Your task to perform on an android device: turn on airplane mode Image 0: 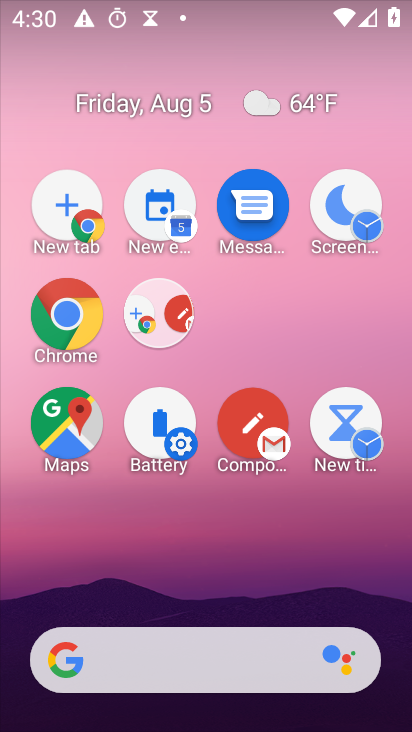
Step 0: drag from (215, 407) to (174, 260)
Your task to perform on an android device: turn on airplane mode Image 1: 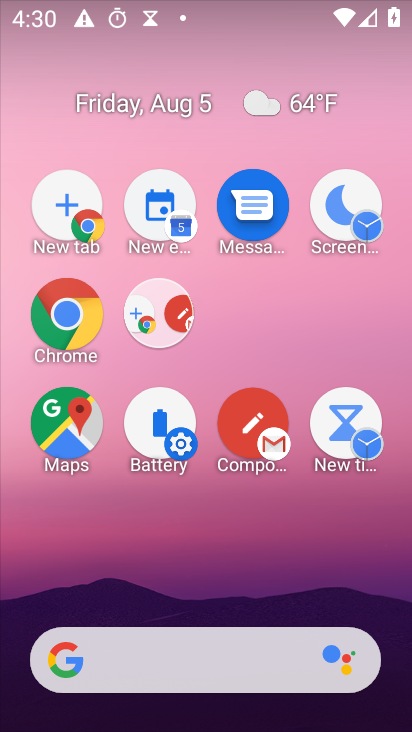
Step 1: drag from (150, 473) to (148, 215)
Your task to perform on an android device: turn on airplane mode Image 2: 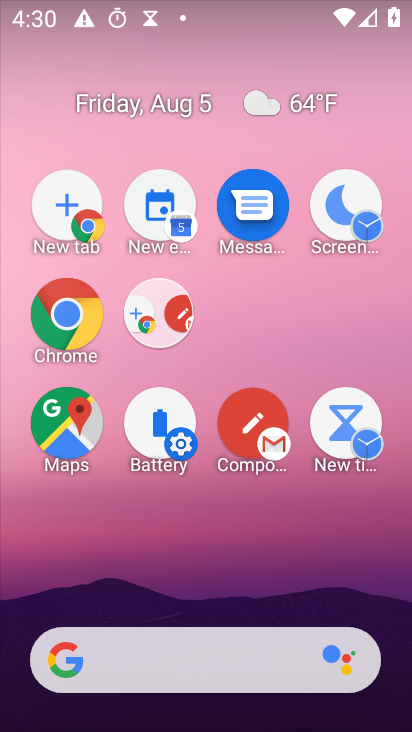
Step 2: drag from (170, 471) to (134, 136)
Your task to perform on an android device: turn on airplane mode Image 3: 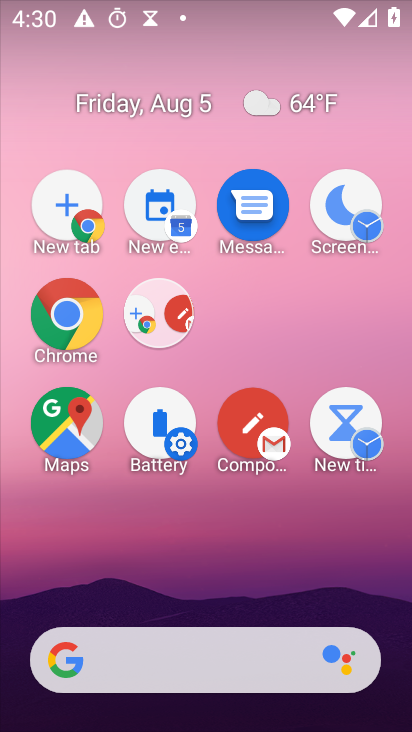
Step 3: press back button
Your task to perform on an android device: turn on airplane mode Image 4: 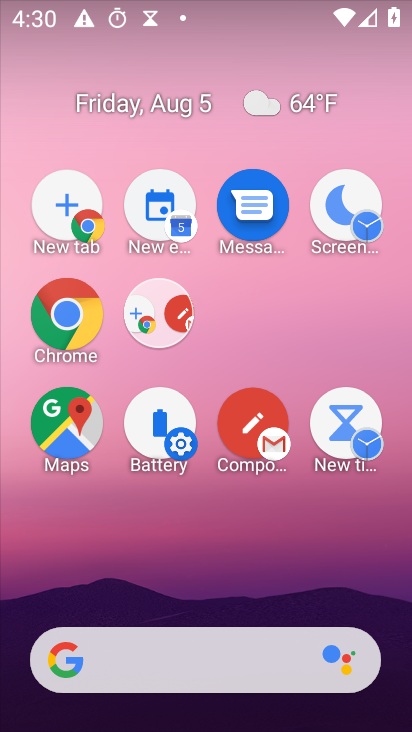
Step 4: press back button
Your task to perform on an android device: turn on airplane mode Image 5: 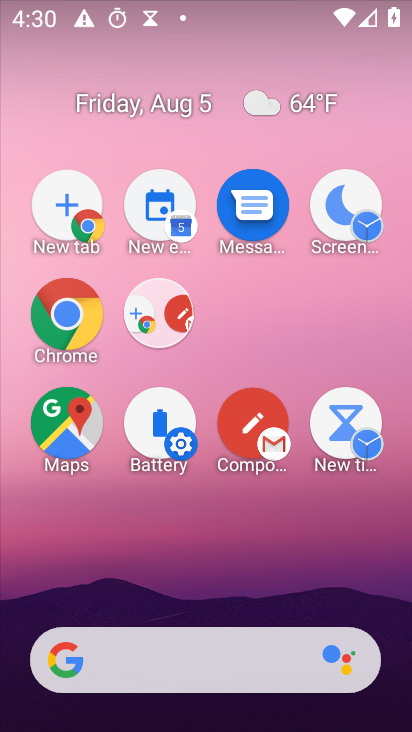
Step 5: press back button
Your task to perform on an android device: turn on airplane mode Image 6: 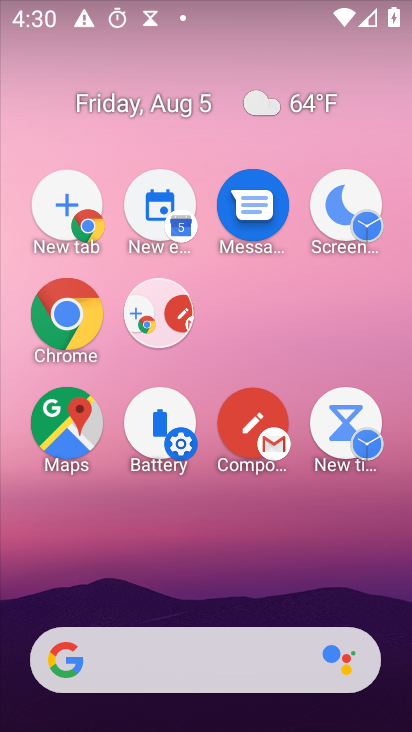
Step 6: drag from (191, 607) to (48, 190)
Your task to perform on an android device: turn on airplane mode Image 7: 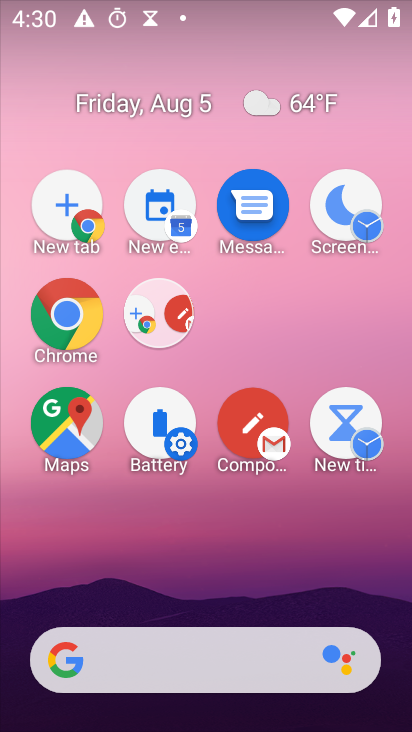
Step 7: drag from (150, 472) to (156, 158)
Your task to perform on an android device: turn on airplane mode Image 8: 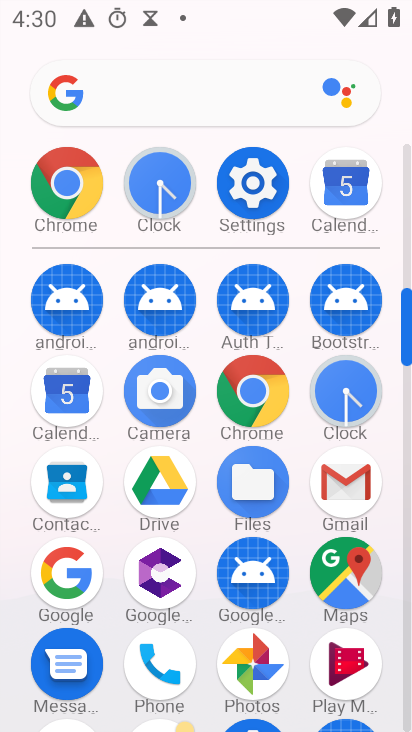
Step 8: drag from (218, 412) to (205, 96)
Your task to perform on an android device: turn on airplane mode Image 9: 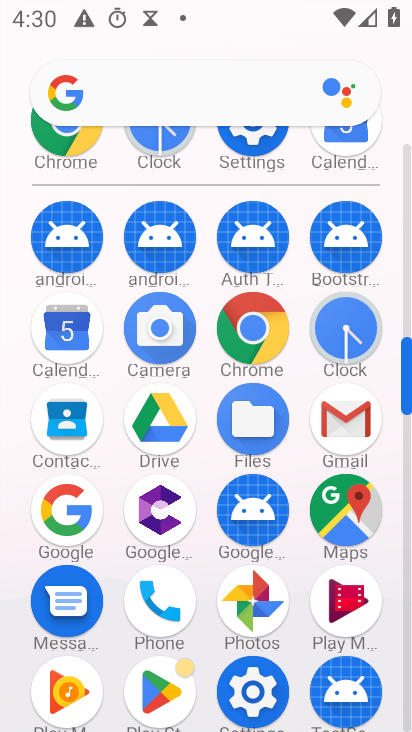
Step 9: click (253, 141)
Your task to perform on an android device: turn on airplane mode Image 10: 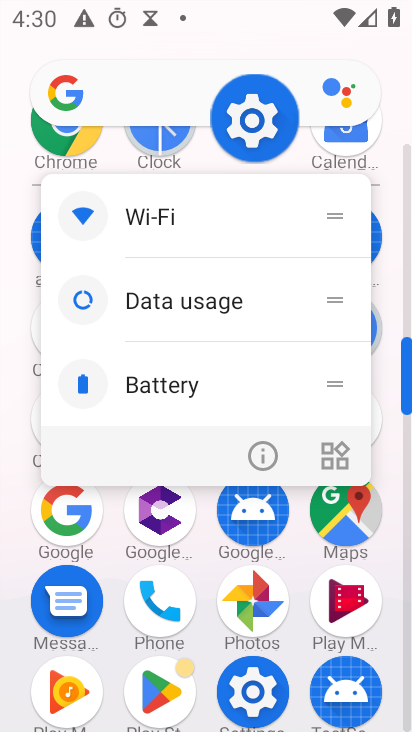
Step 10: click (257, 139)
Your task to perform on an android device: turn on airplane mode Image 11: 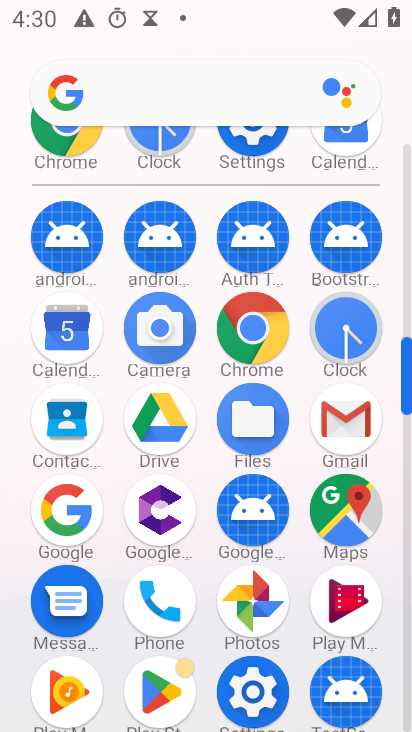
Step 11: click (258, 132)
Your task to perform on an android device: turn on airplane mode Image 12: 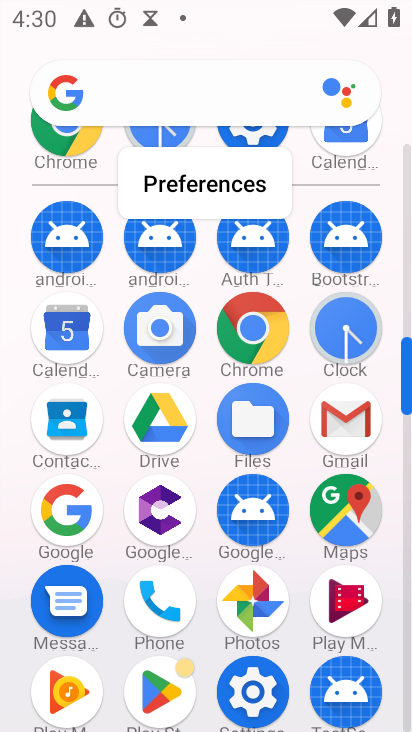
Step 12: click (254, 156)
Your task to perform on an android device: turn on airplane mode Image 13: 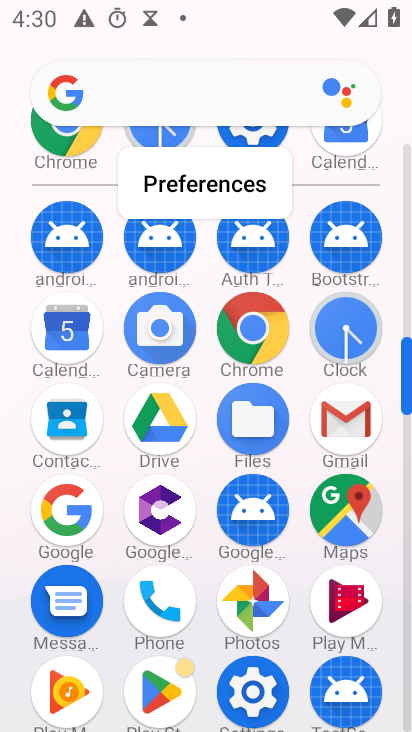
Step 13: click (254, 136)
Your task to perform on an android device: turn on airplane mode Image 14: 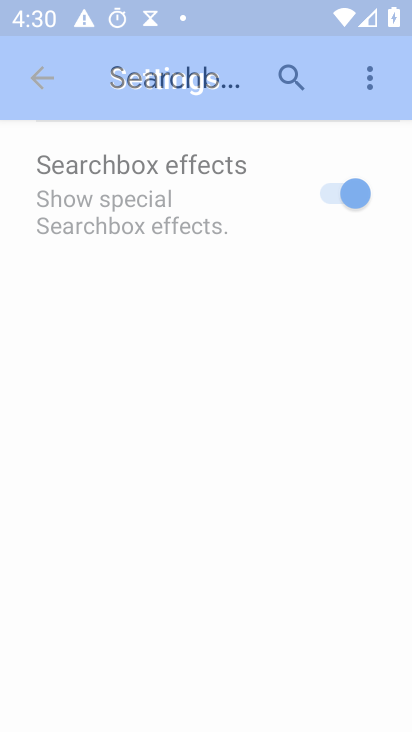
Step 14: drag from (257, 145) to (260, 212)
Your task to perform on an android device: turn on airplane mode Image 15: 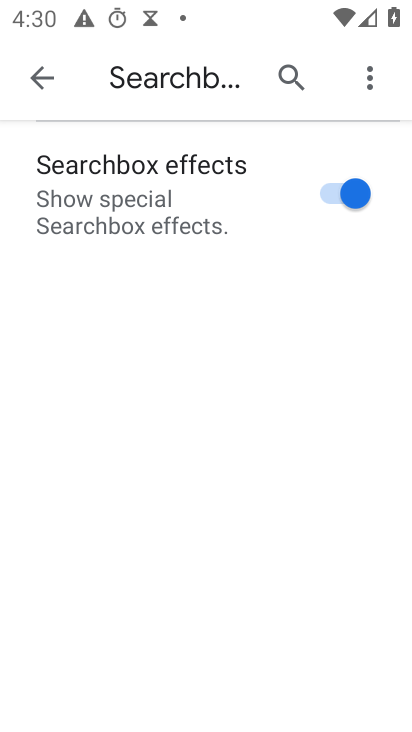
Step 15: click (24, 85)
Your task to perform on an android device: turn on airplane mode Image 16: 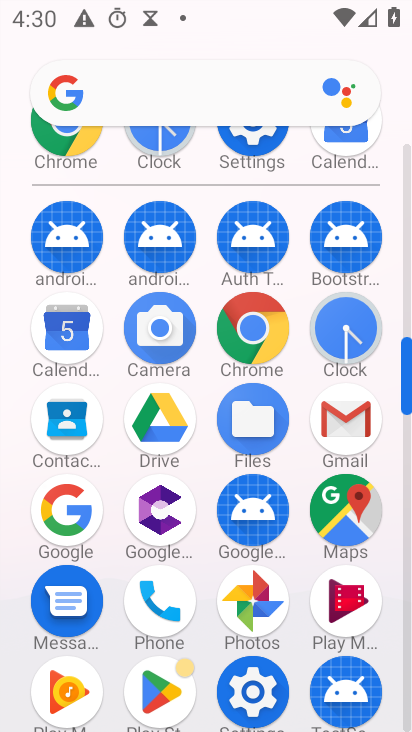
Step 16: drag from (233, 448) to (216, 217)
Your task to perform on an android device: turn on airplane mode Image 17: 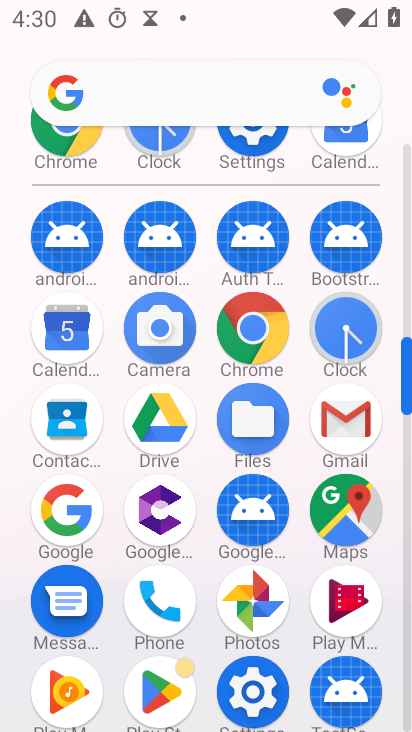
Step 17: drag from (197, 408) to (208, 351)
Your task to perform on an android device: turn on airplane mode Image 18: 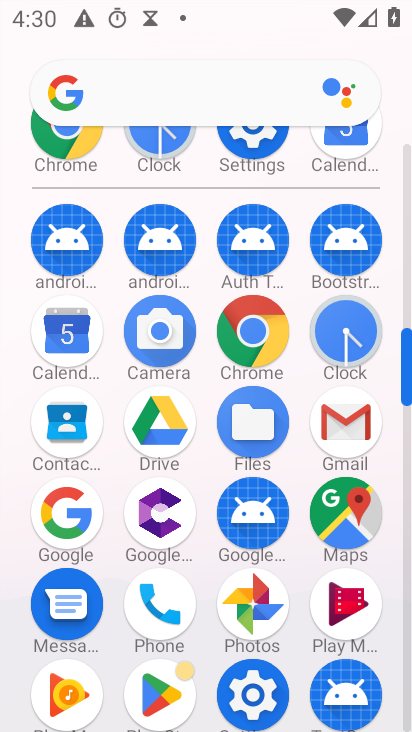
Step 18: click (234, 578)
Your task to perform on an android device: turn on airplane mode Image 19: 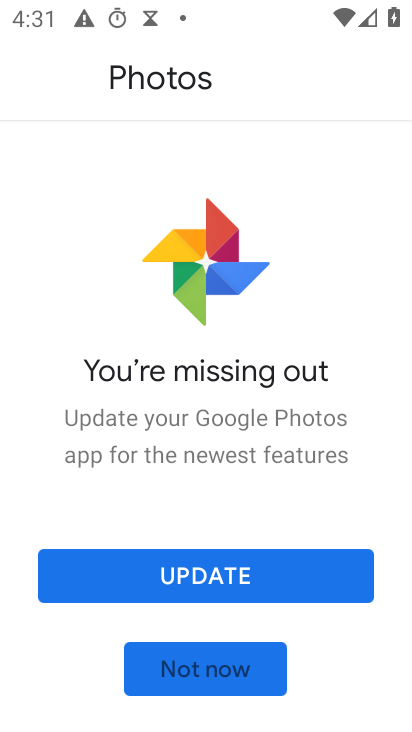
Step 19: click (183, 676)
Your task to perform on an android device: turn on airplane mode Image 20: 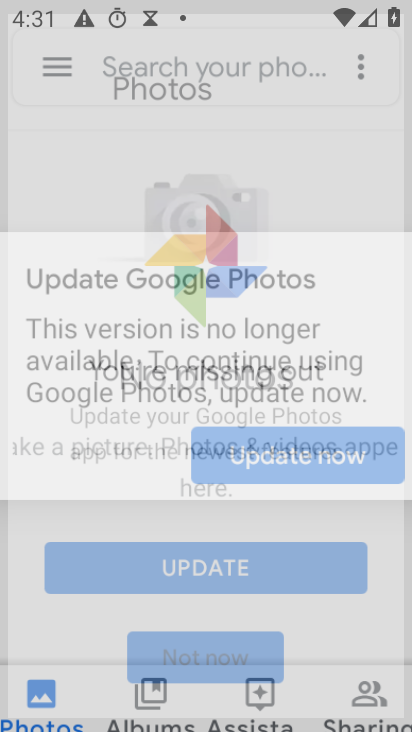
Step 20: click (193, 667)
Your task to perform on an android device: turn on airplane mode Image 21: 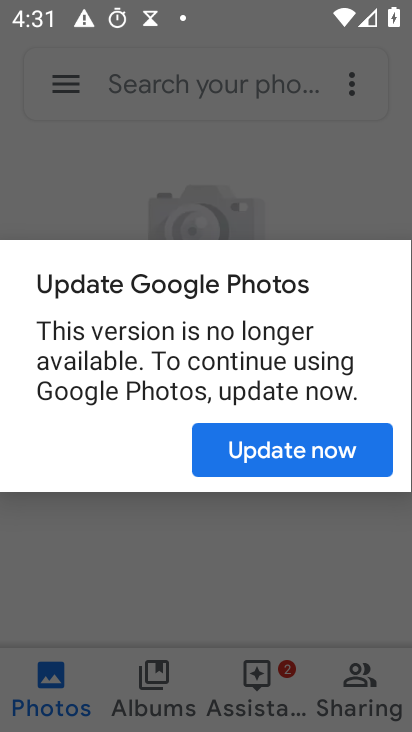
Step 21: click (196, 667)
Your task to perform on an android device: turn on airplane mode Image 22: 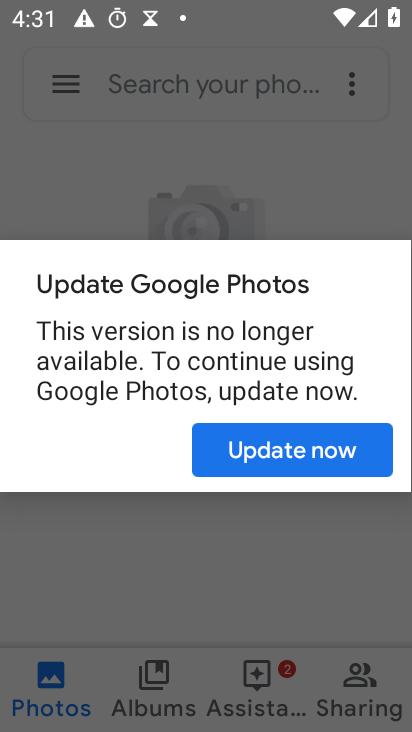
Step 22: click (285, 211)
Your task to perform on an android device: turn on airplane mode Image 23: 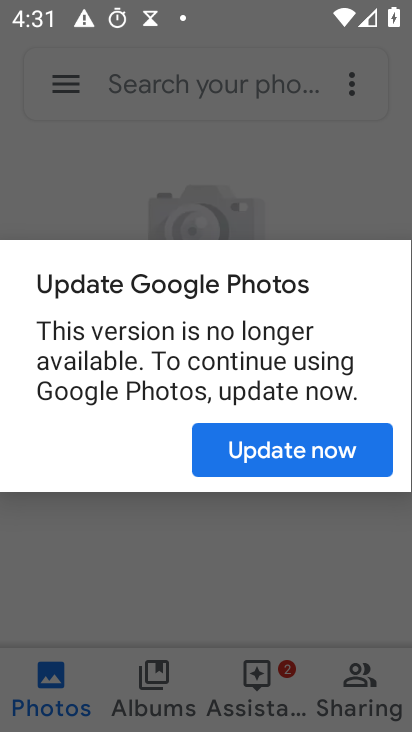
Step 23: click (285, 210)
Your task to perform on an android device: turn on airplane mode Image 24: 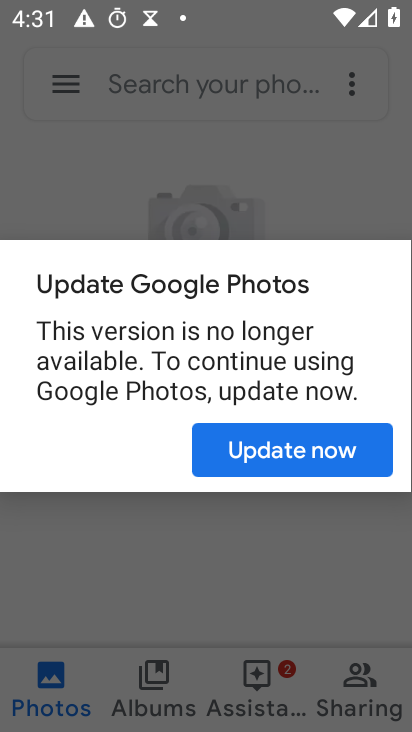
Step 24: click (285, 210)
Your task to perform on an android device: turn on airplane mode Image 25: 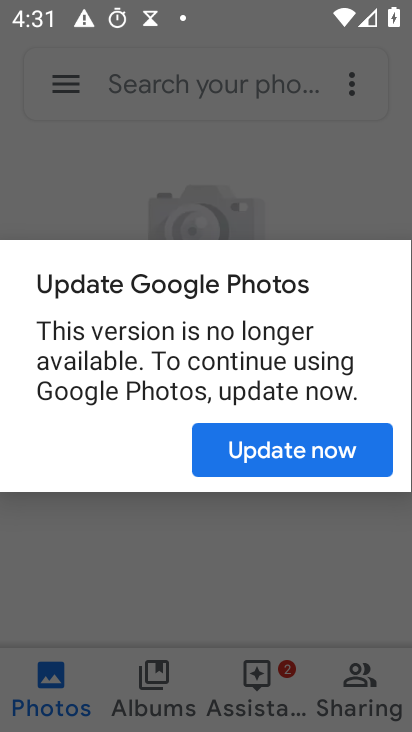
Step 25: click (286, 209)
Your task to perform on an android device: turn on airplane mode Image 26: 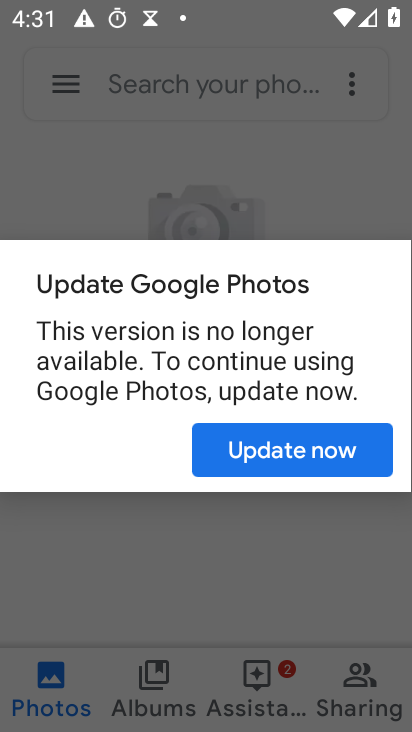
Step 26: click (287, 210)
Your task to perform on an android device: turn on airplane mode Image 27: 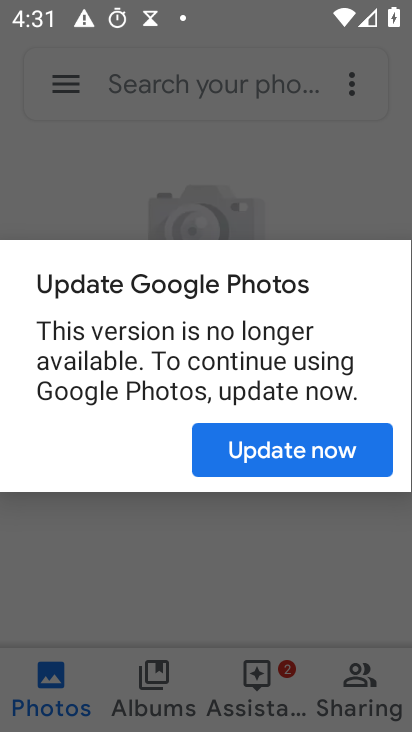
Step 27: click (226, 184)
Your task to perform on an android device: turn on airplane mode Image 28: 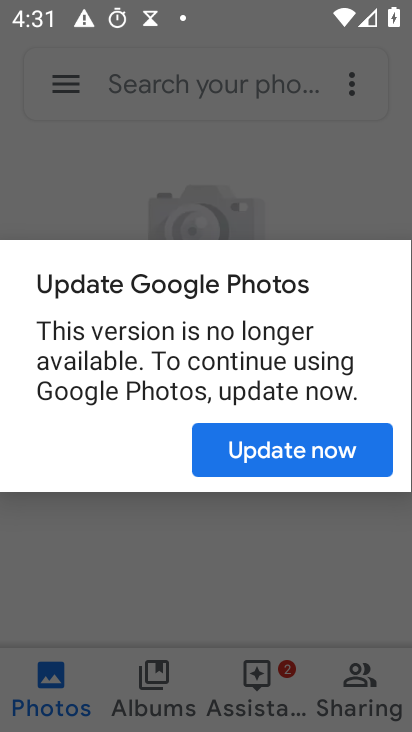
Step 28: press back button
Your task to perform on an android device: turn on airplane mode Image 29: 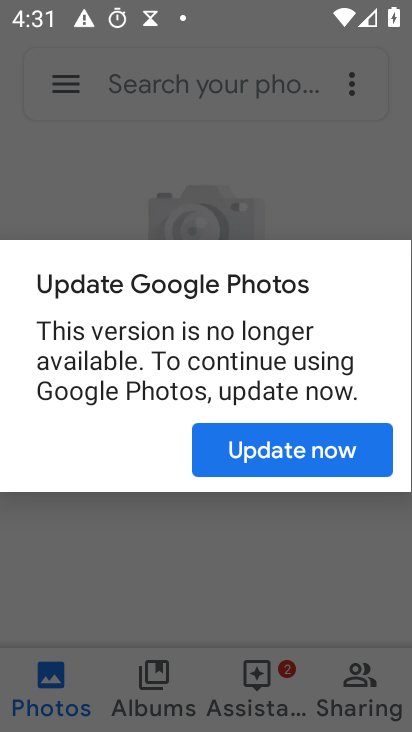
Step 29: press back button
Your task to perform on an android device: turn on airplane mode Image 30: 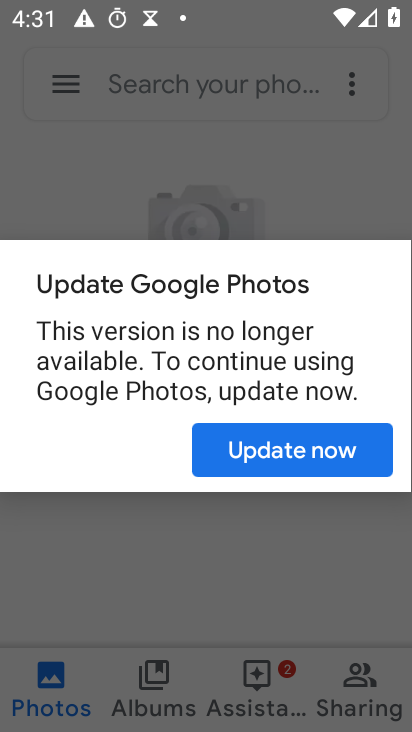
Step 30: press back button
Your task to perform on an android device: turn on airplane mode Image 31: 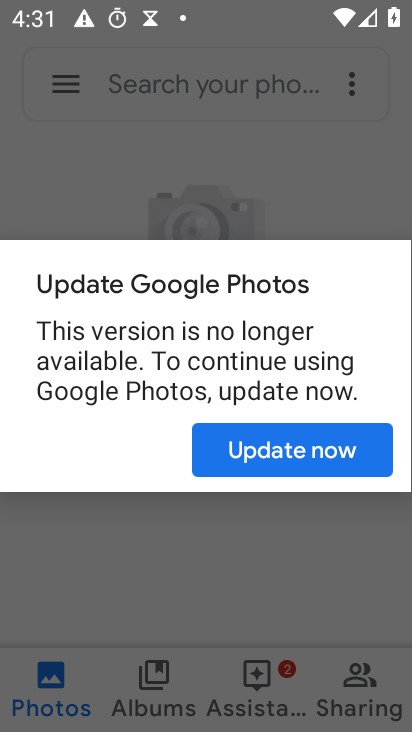
Step 31: press back button
Your task to perform on an android device: turn on airplane mode Image 32: 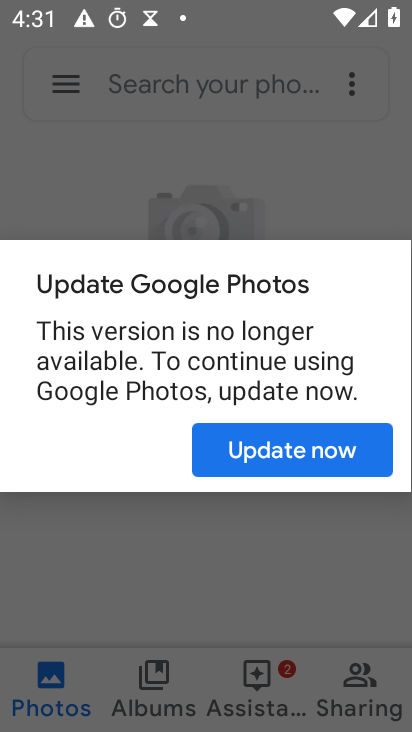
Step 32: press home button
Your task to perform on an android device: turn on airplane mode Image 33: 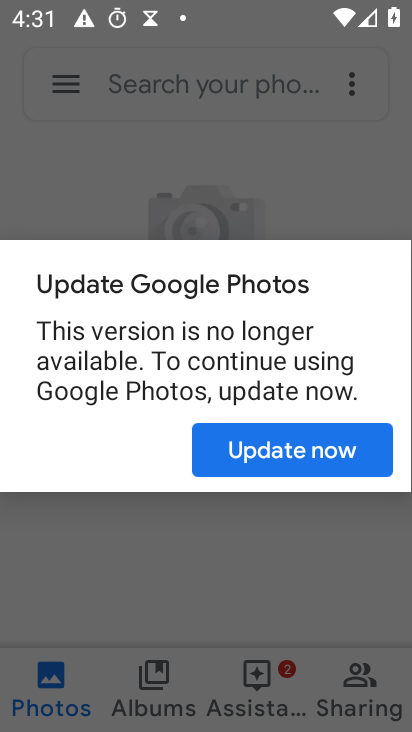
Step 33: press home button
Your task to perform on an android device: turn on airplane mode Image 34: 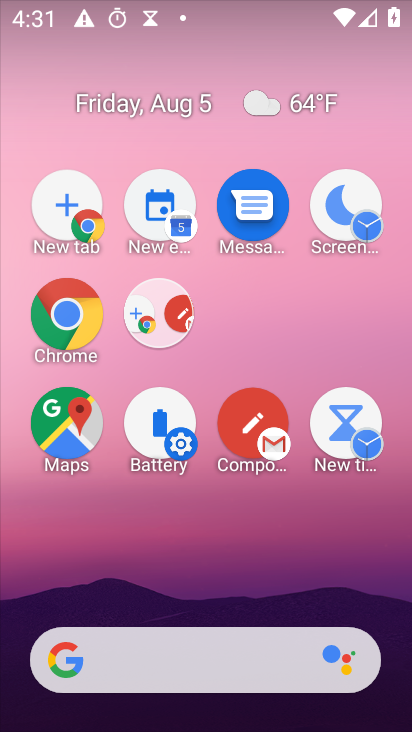
Step 34: press home button
Your task to perform on an android device: turn on airplane mode Image 35: 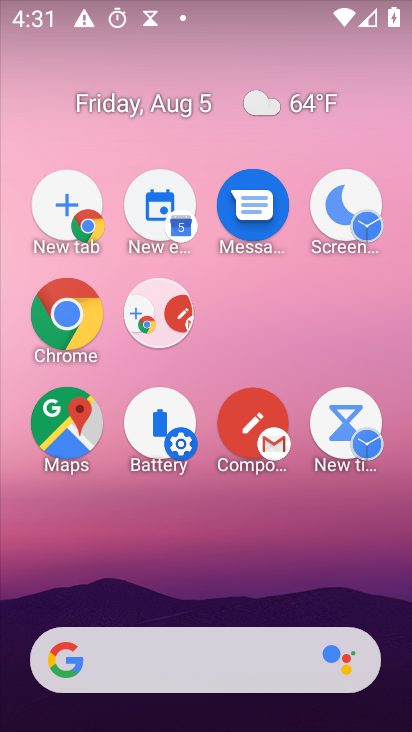
Step 35: press home button
Your task to perform on an android device: turn on airplane mode Image 36: 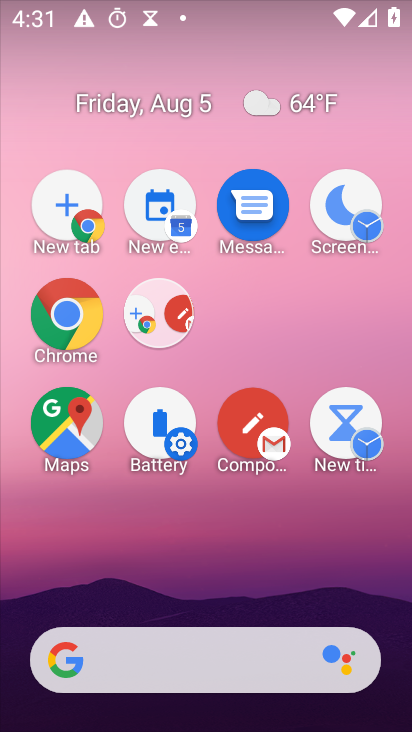
Step 36: drag from (262, 680) to (176, 235)
Your task to perform on an android device: turn on airplane mode Image 37: 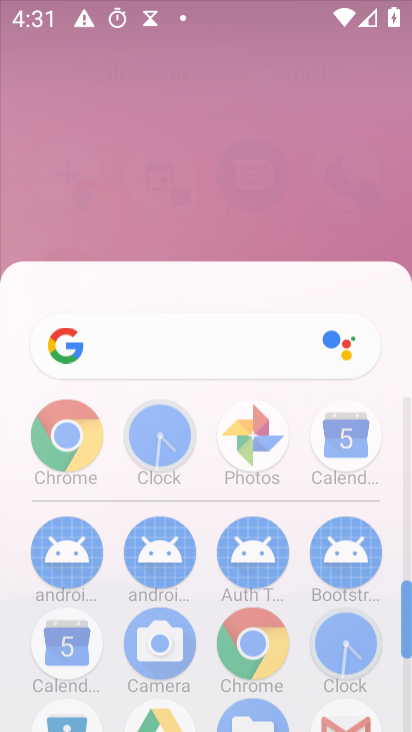
Step 37: drag from (245, 528) to (176, 117)
Your task to perform on an android device: turn on airplane mode Image 38: 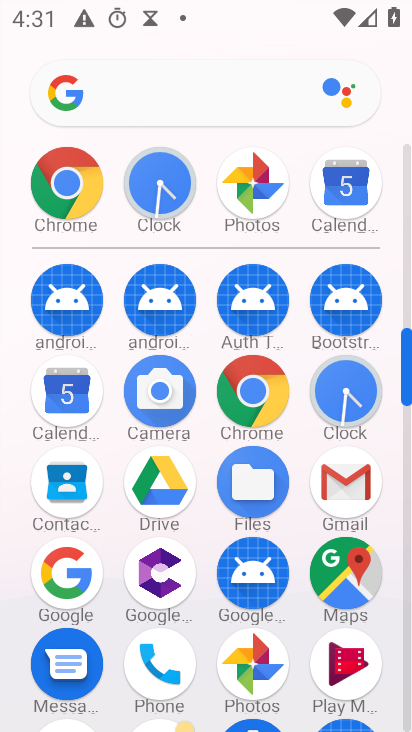
Step 38: drag from (175, 292) to (201, 40)
Your task to perform on an android device: turn on airplane mode Image 39: 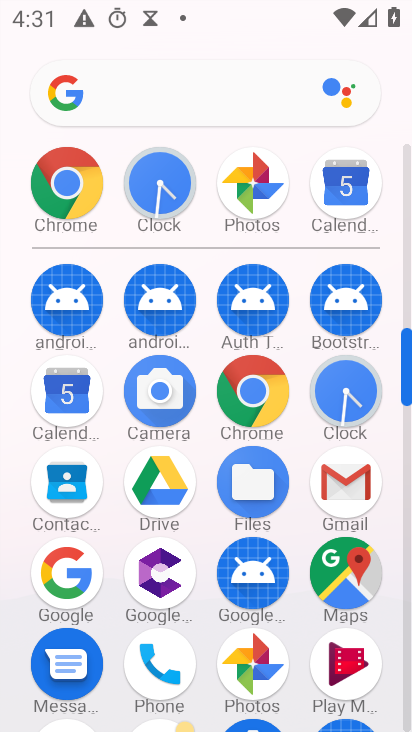
Step 39: drag from (206, 458) to (193, 175)
Your task to perform on an android device: turn on airplane mode Image 40: 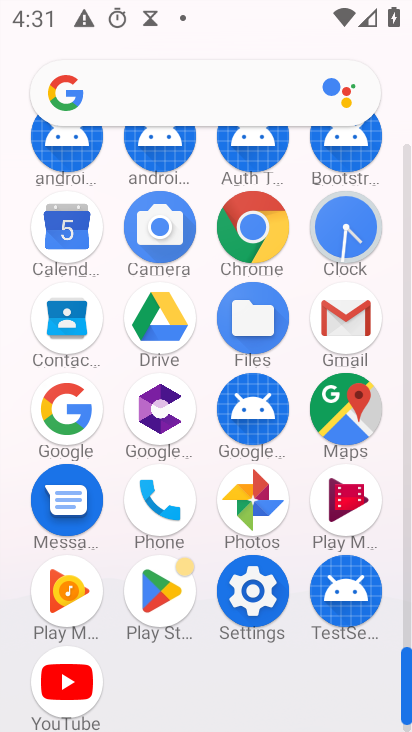
Step 40: click (269, 575)
Your task to perform on an android device: turn on airplane mode Image 41: 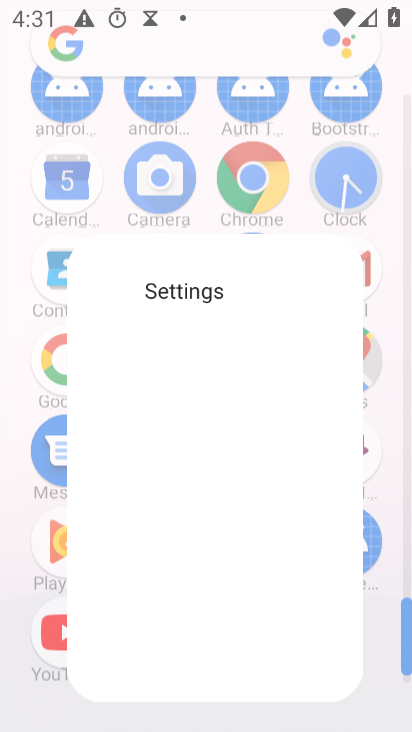
Step 41: click (273, 575)
Your task to perform on an android device: turn on airplane mode Image 42: 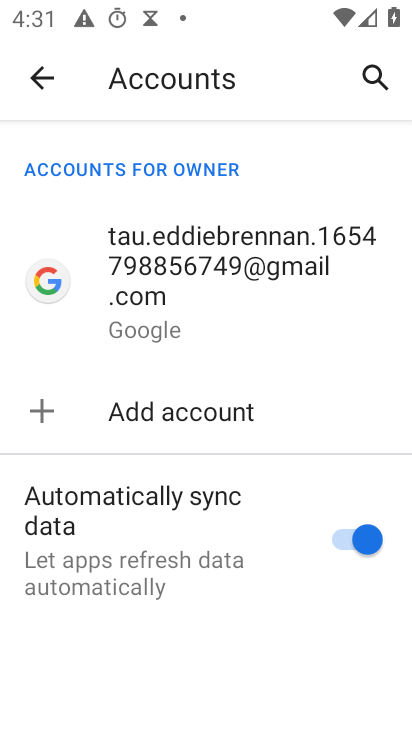
Step 42: click (295, 511)
Your task to perform on an android device: turn on airplane mode Image 43: 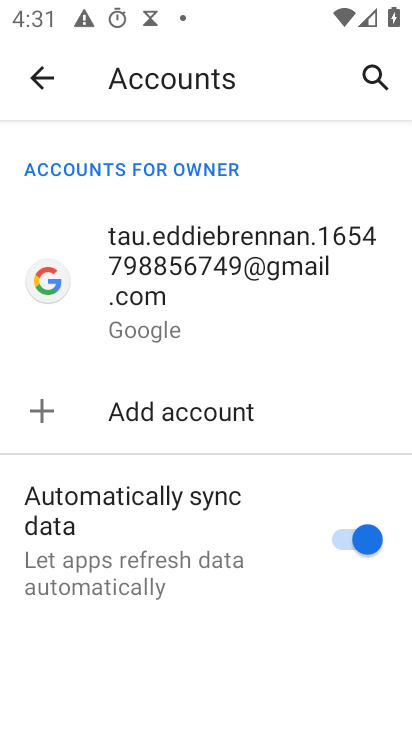
Step 43: click (40, 79)
Your task to perform on an android device: turn on airplane mode Image 44: 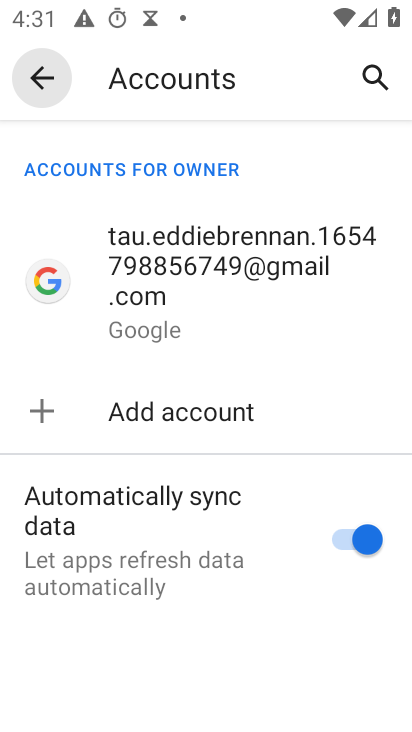
Step 44: click (38, 79)
Your task to perform on an android device: turn on airplane mode Image 45: 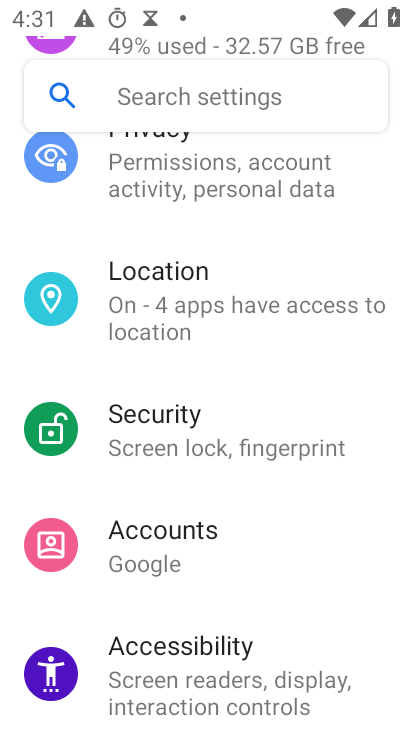
Step 45: drag from (136, 175) to (217, 705)
Your task to perform on an android device: turn on airplane mode Image 46: 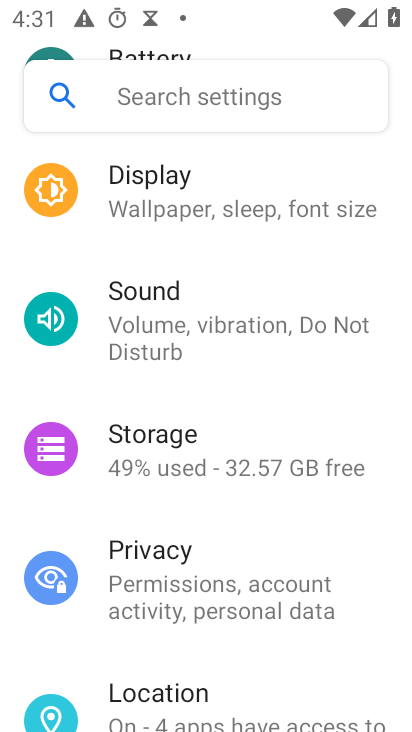
Step 46: drag from (153, 272) to (206, 704)
Your task to perform on an android device: turn on airplane mode Image 47: 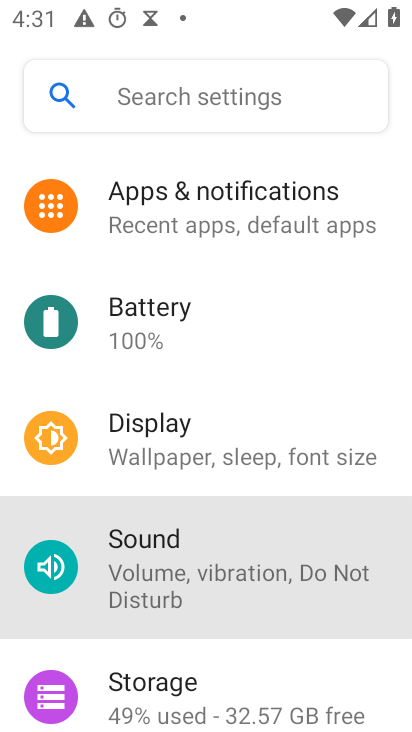
Step 47: drag from (121, 294) to (266, 633)
Your task to perform on an android device: turn on airplane mode Image 48: 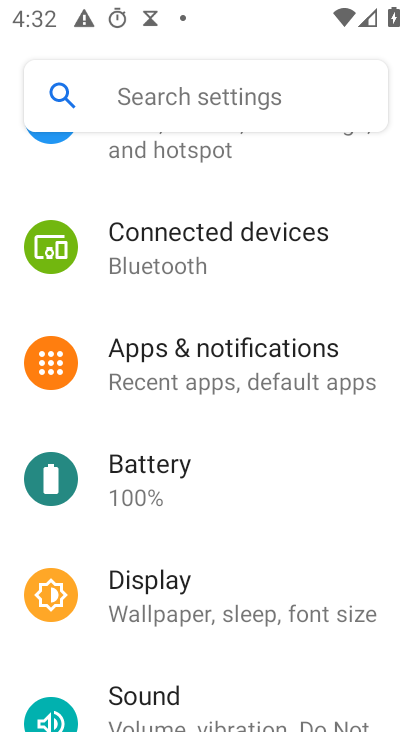
Step 48: drag from (194, 355) to (284, 633)
Your task to perform on an android device: turn on airplane mode Image 49: 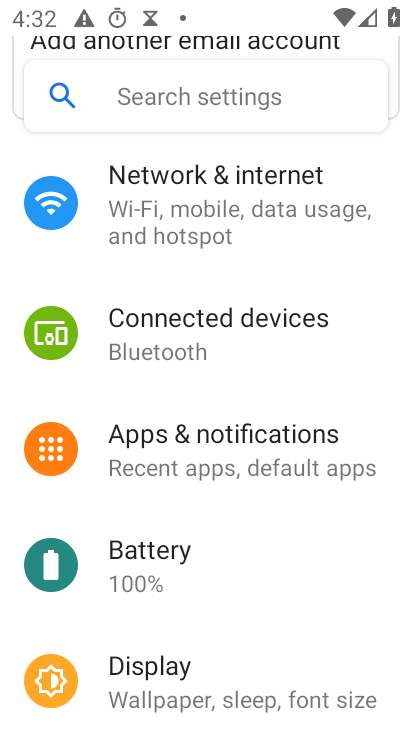
Step 49: click (180, 216)
Your task to perform on an android device: turn on airplane mode Image 50: 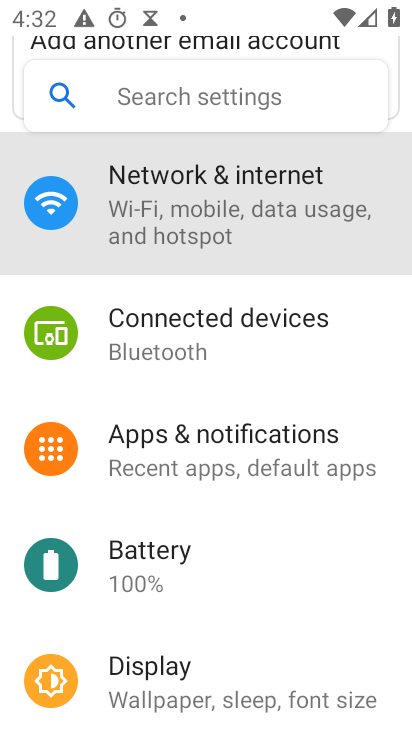
Step 50: click (172, 223)
Your task to perform on an android device: turn on airplane mode Image 51: 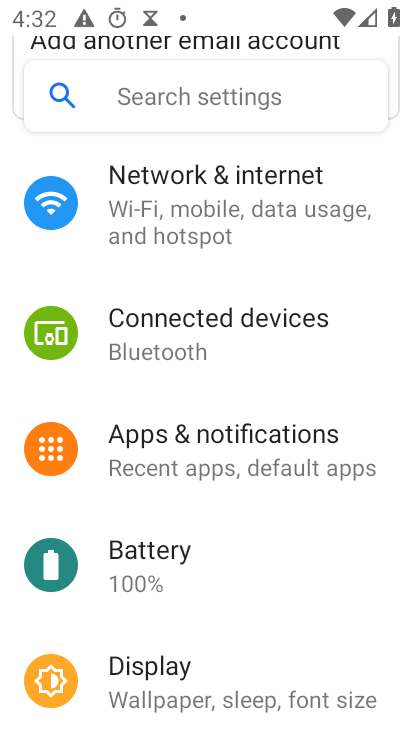
Step 51: click (185, 218)
Your task to perform on an android device: turn on airplane mode Image 52: 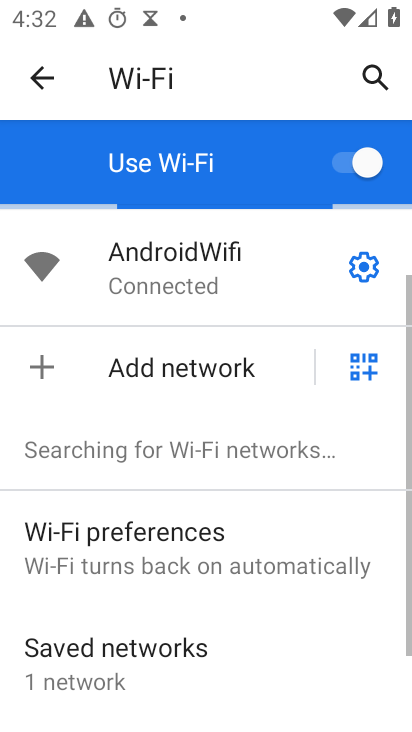
Step 52: click (331, 399)
Your task to perform on an android device: turn on airplane mode Image 53: 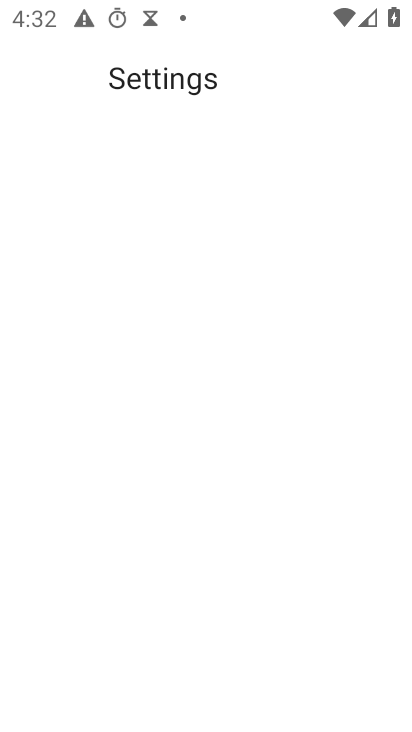
Step 53: click (33, 80)
Your task to perform on an android device: turn on airplane mode Image 54: 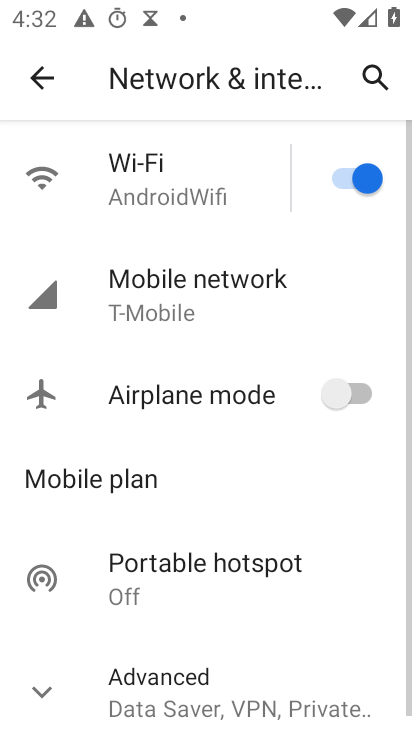
Step 54: click (345, 397)
Your task to perform on an android device: turn on airplane mode Image 55: 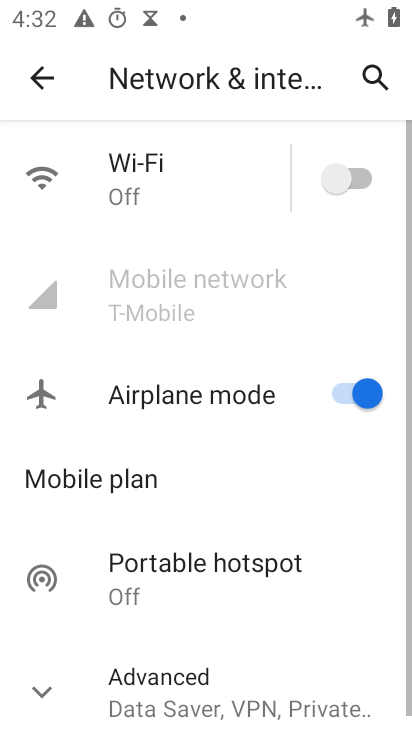
Step 55: task complete